Your task to perform on an android device: add a label to a message in the gmail app Image 0: 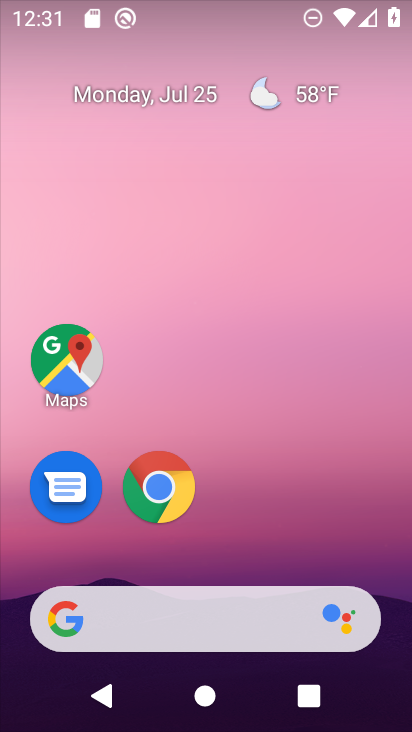
Step 0: click (186, 479)
Your task to perform on an android device: add a label to a message in the gmail app Image 1: 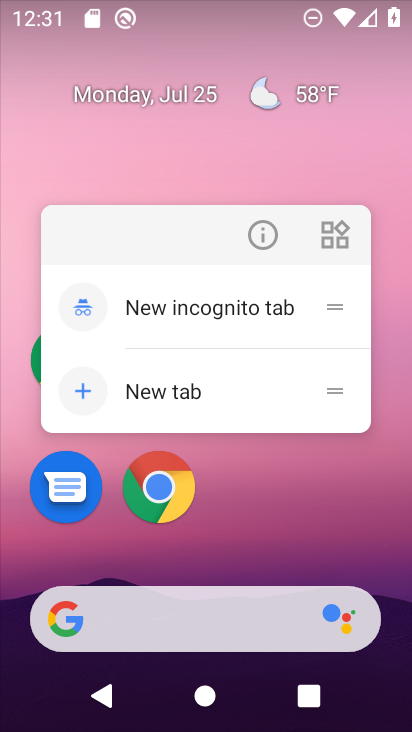
Step 1: click (262, 545)
Your task to perform on an android device: add a label to a message in the gmail app Image 2: 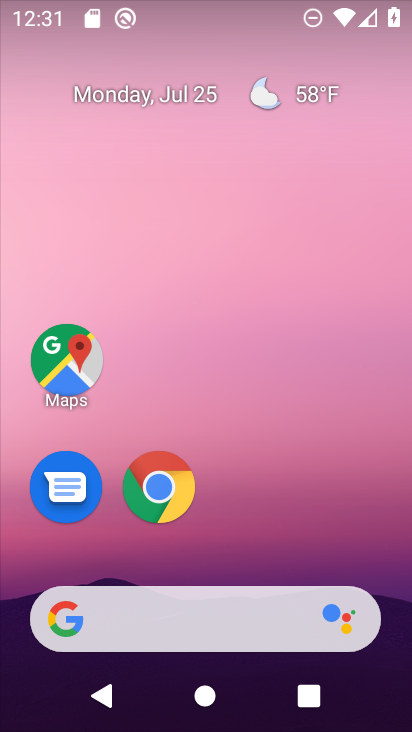
Step 2: drag from (268, 540) to (346, 0)
Your task to perform on an android device: add a label to a message in the gmail app Image 3: 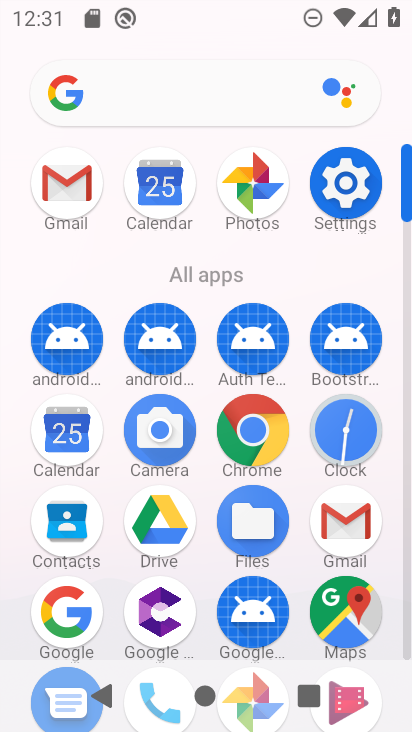
Step 3: click (82, 173)
Your task to perform on an android device: add a label to a message in the gmail app Image 4: 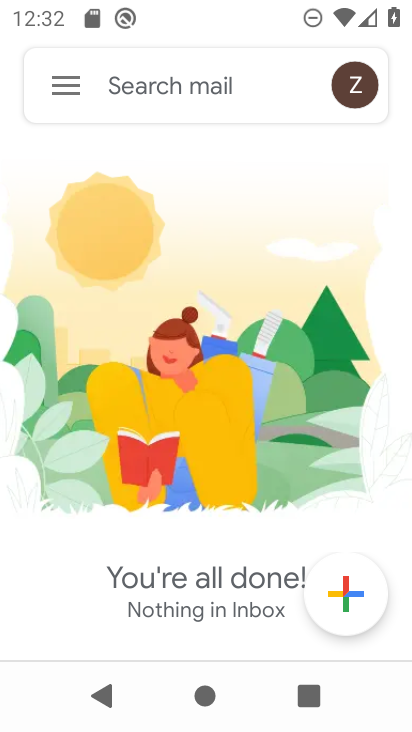
Step 4: click (55, 89)
Your task to perform on an android device: add a label to a message in the gmail app Image 5: 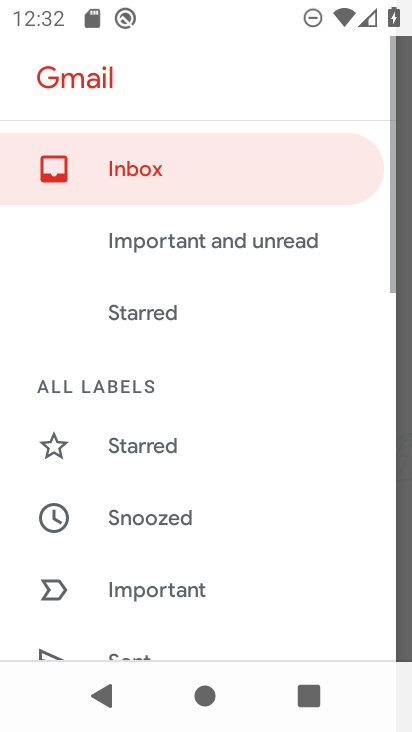
Step 5: drag from (137, 603) to (259, 71)
Your task to perform on an android device: add a label to a message in the gmail app Image 6: 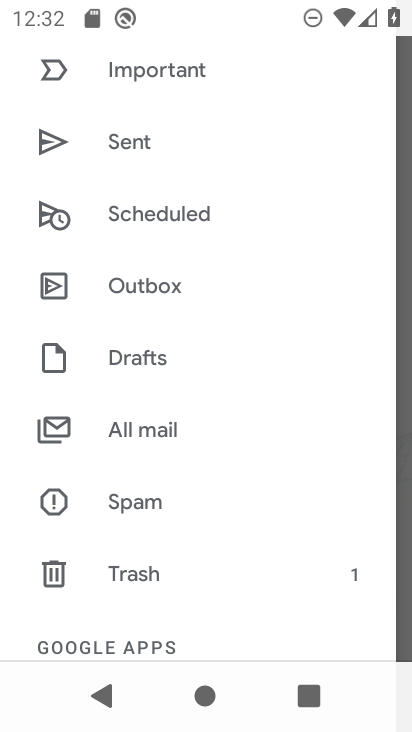
Step 6: click (117, 426)
Your task to perform on an android device: add a label to a message in the gmail app Image 7: 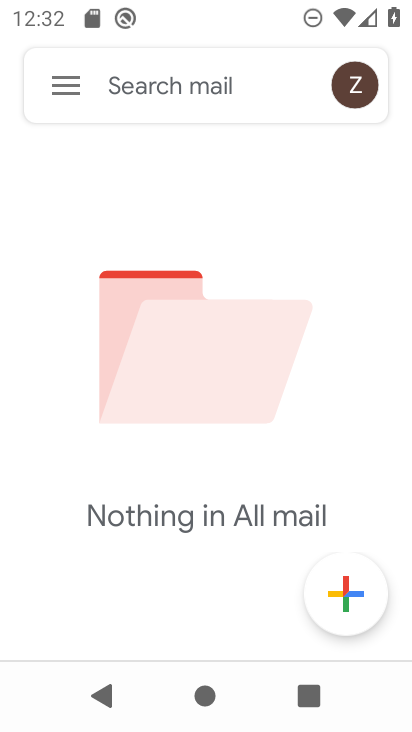
Step 7: task complete